Your task to perform on an android device: toggle improve location accuracy Image 0: 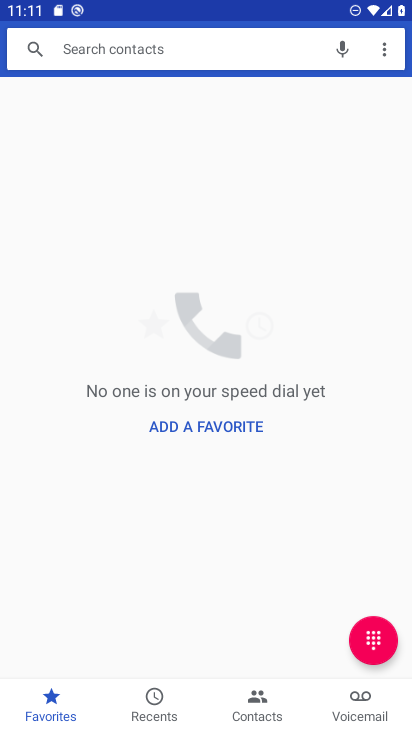
Step 0: press home button
Your task to perform on an android device: toggle improve location accuracy Image 1: 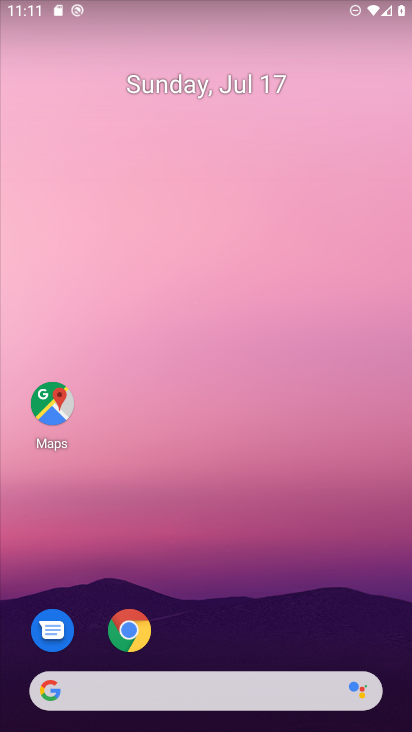
Step 1: drag from (197, 599) to (194, 15)
Your task to perform on an android device: toggle improve location accuracy Image 2: 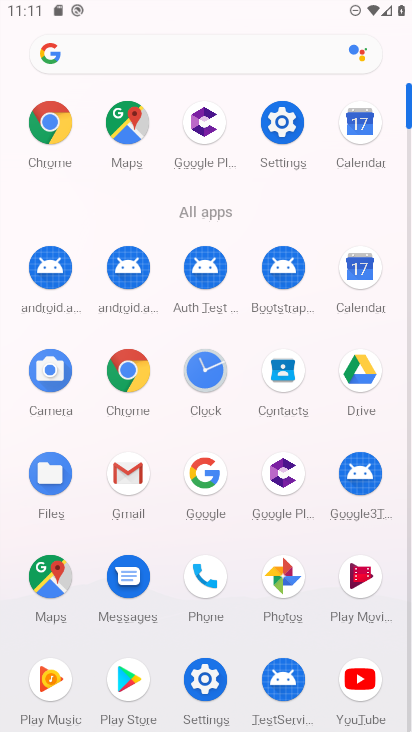
Step 2: click (279, 121)
Your task to perform on an android device: toggle improve location accuracy Image 3: 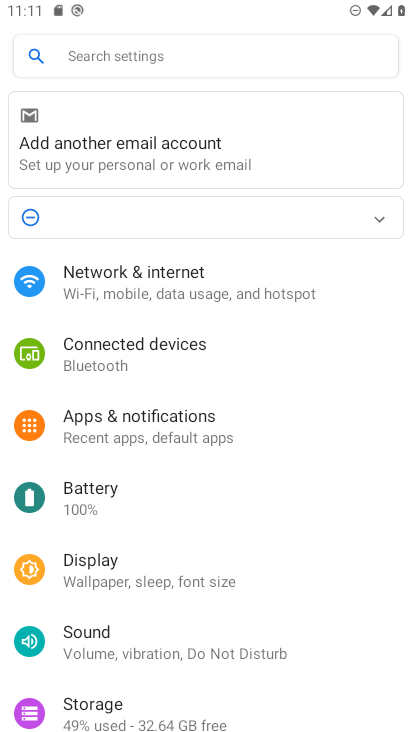
Step 3: click (279, 121)
Your task to perform on an android device: toggle improve location accuracy Image 4: 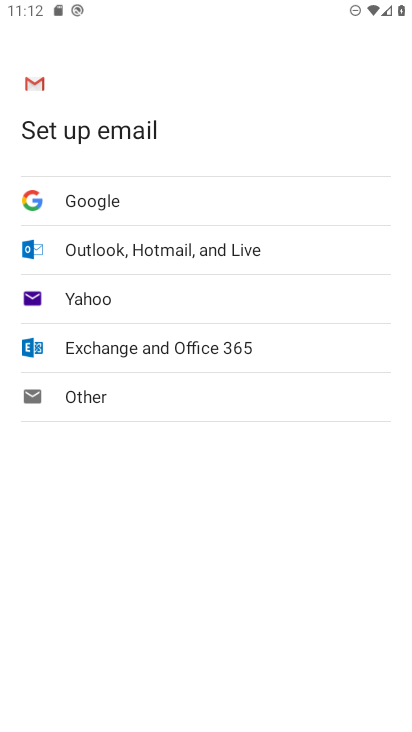
Step 4: press home button
Your task to perform on an android device: toggle improve location accuracy Image 5: 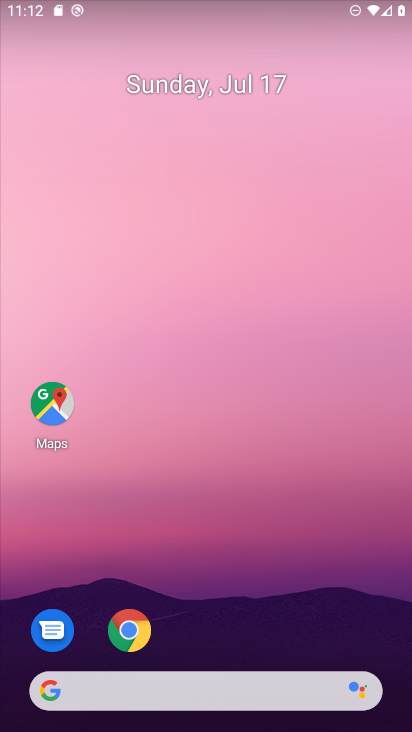
Step 5: drag from (204, 642) to (140, 4)
Your task to perform on an android device: toggle improve location accuracy Image 6: 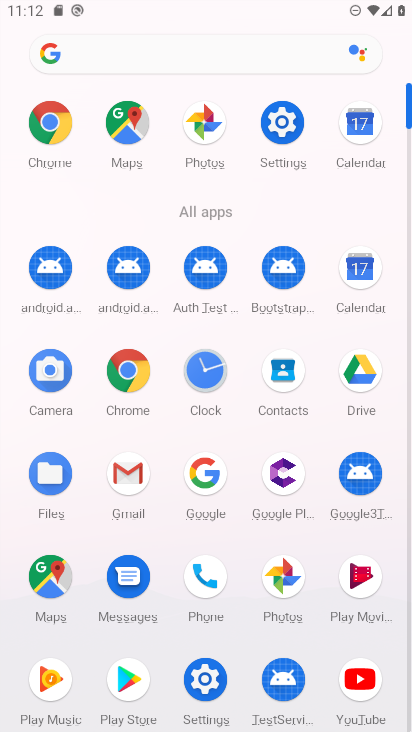
Step 6: click (282, 118)
Your task to perform on an android device: toggle improve location accuracy Image 7: 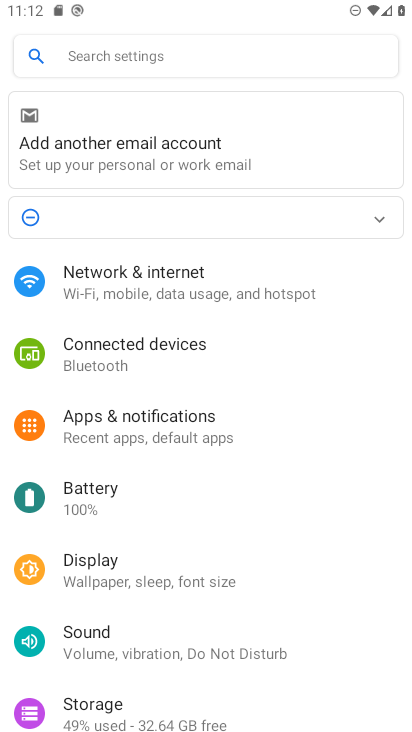
Step 7: drag from (184, 622) to (209, 54)
Your task to perform on an android device: toggle improve location accuracy Image 8: 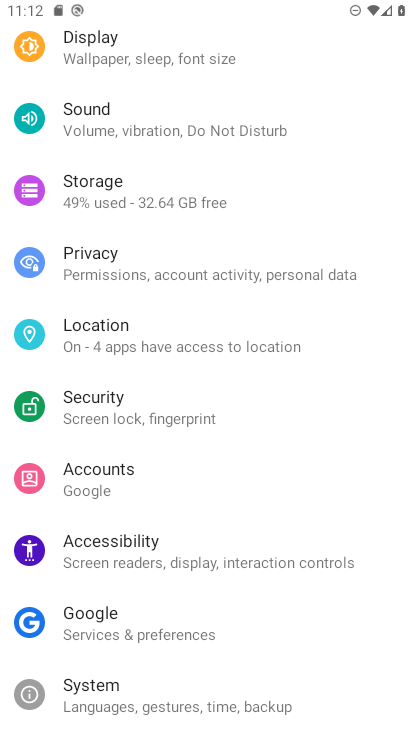
Step 8: click (130, 334)
Your task to perform on an android device: toggle improve location accuracy Image 9: 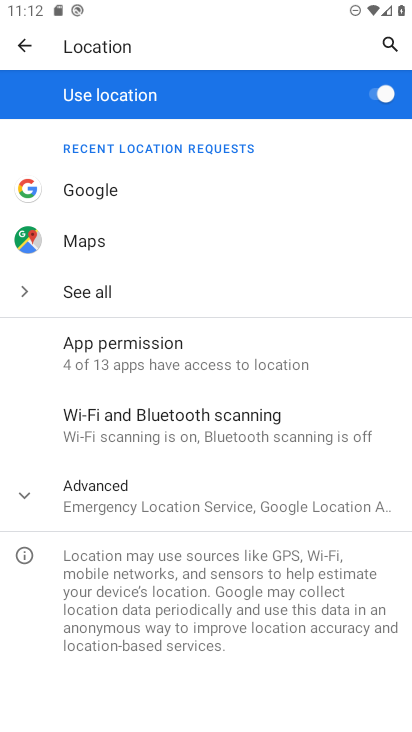
Step 9: click (106, 494)
Your task to perform on an android device: toggle improve location accuracy Image 10: 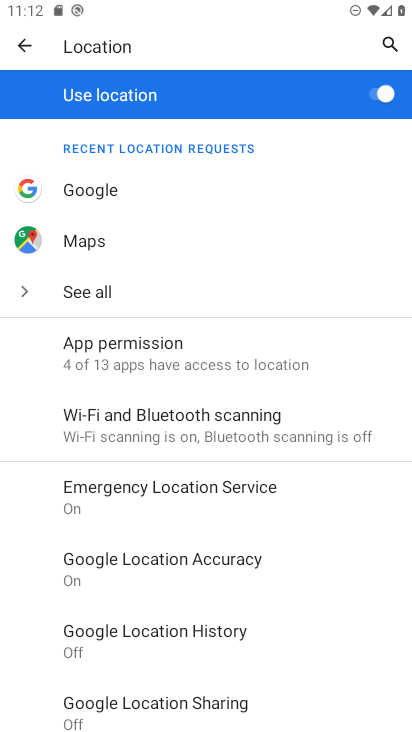
Step 10: click (231, 559)
Your task to perform on an android device: toggle improve location accuracy Image 11: 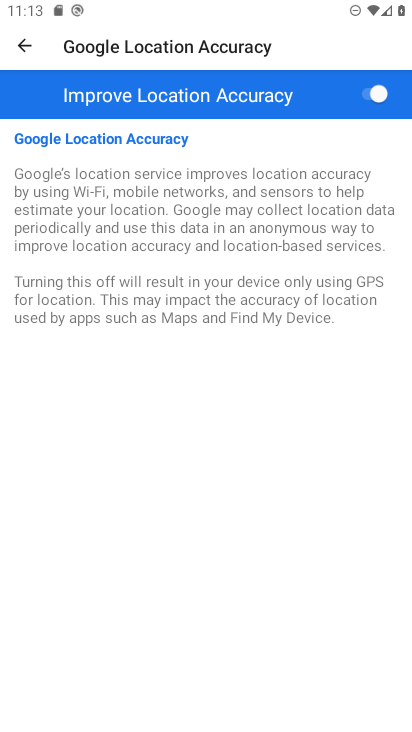
Step 11: click (370, 96)
Your task to perform on an android device: toggle improve location accuracy Image 12: 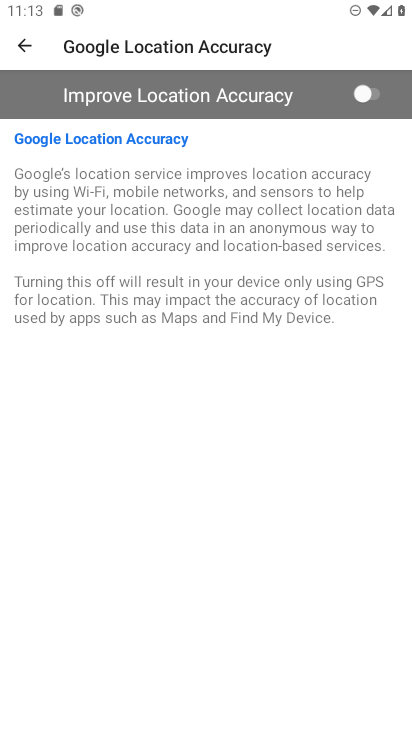
Step 12: task complete